Your task to perform on an android device: turn off airplane mode Image 0: 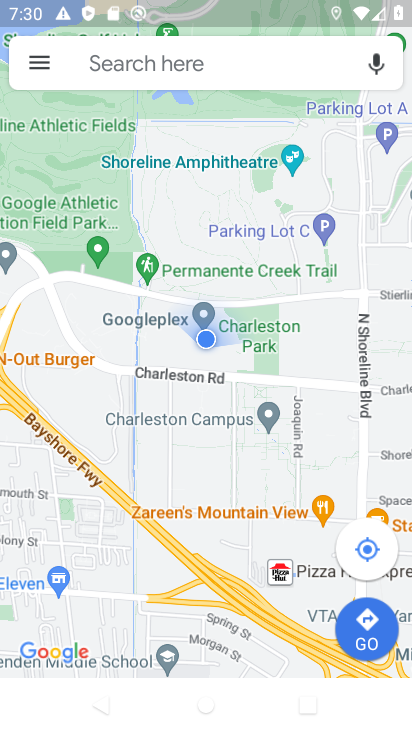
Step 0: press home button
Your task to perform on an android device: turn off airplane mode Image 1: 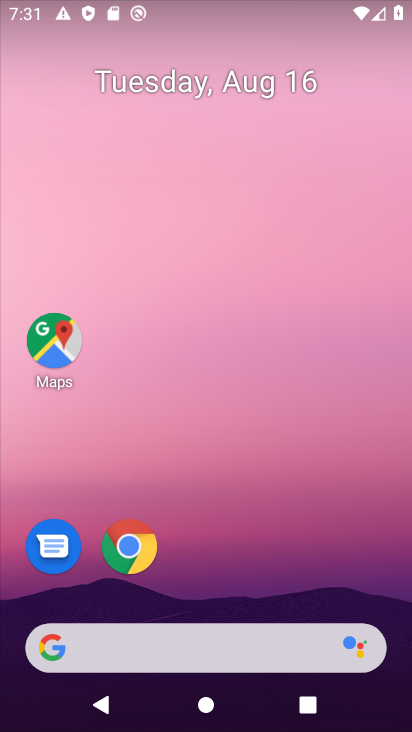
Step 1: drag from (276, 504) to (267, 0)
Your task to perform on an android device: turn off airplane mode Image 2: 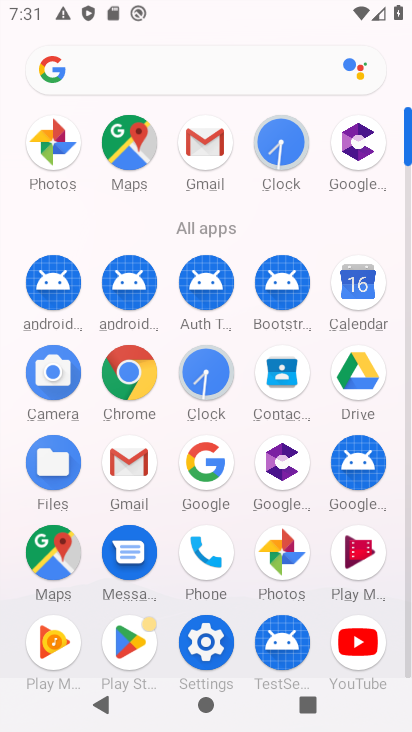
Step 2: click (213, 646)
Your task to perform on an android device: turn off airplane mode Image 3: 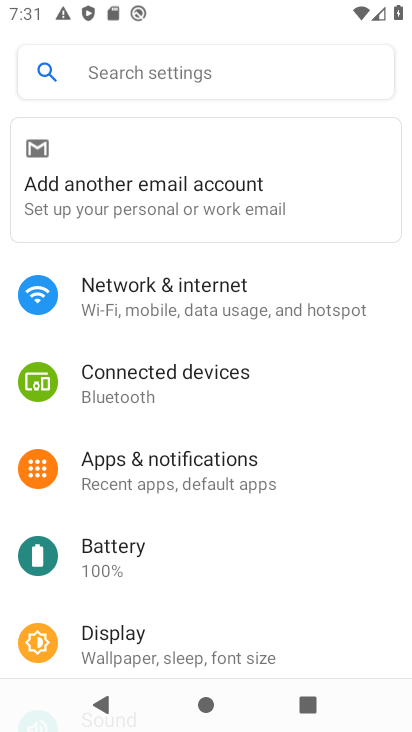
Step 3: click (260, 298)
Your task to perform on an android device: turn off airplane mode Image 4: 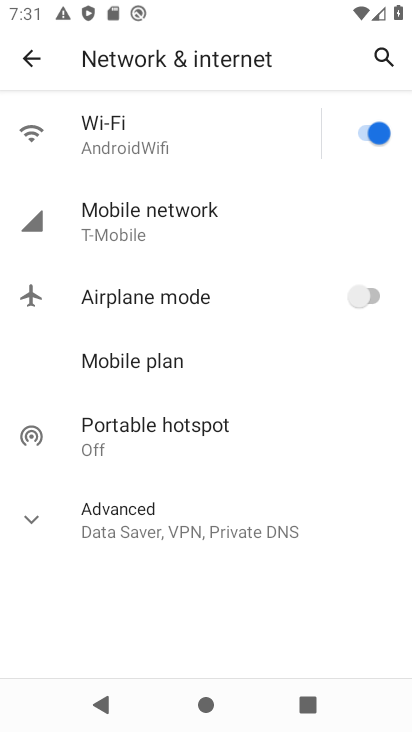
Step 4: task complete